Your task to perform on an android device: Search for seafood restaurants on Google Maps Image 0: 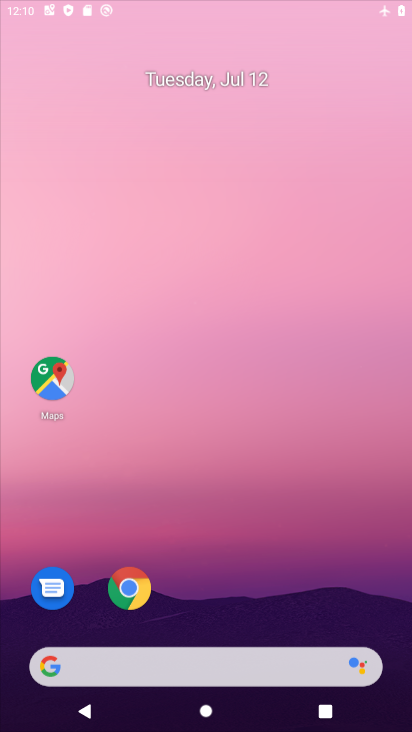
Step 0: click (228, 80)
Your task to perform on an android device: Search for seafood restaurants on Google Maps Image 1: 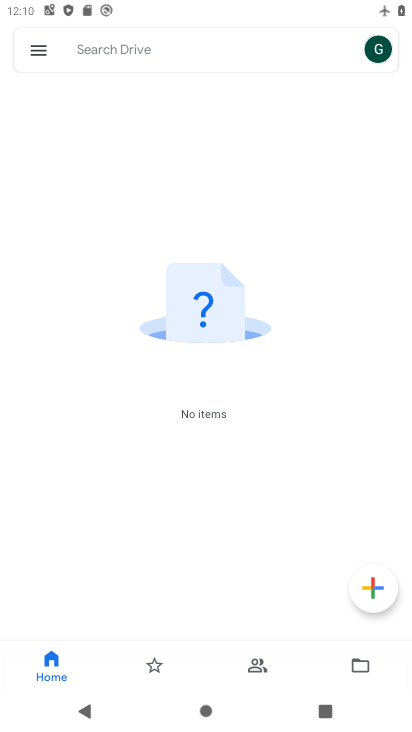
Step 1: press home button
Your task to perform on an android device: Search for seafood restaurants on Google Maps Image 2: 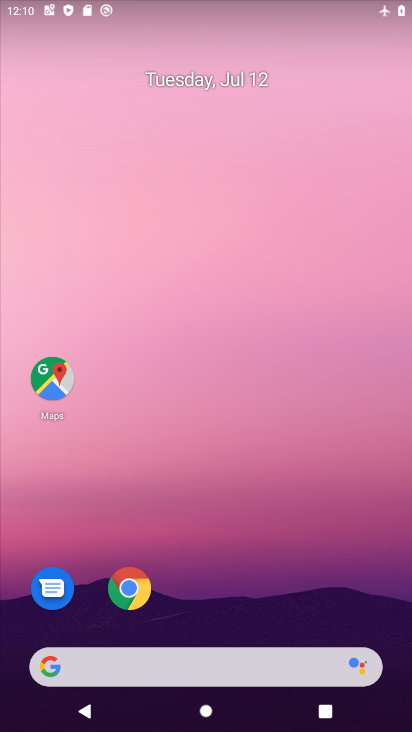
Step 2: drag from (333, 591) to (256, 150)
Your task to perform on an android device: Search for seafood restaurants on Google Maps Image 3: 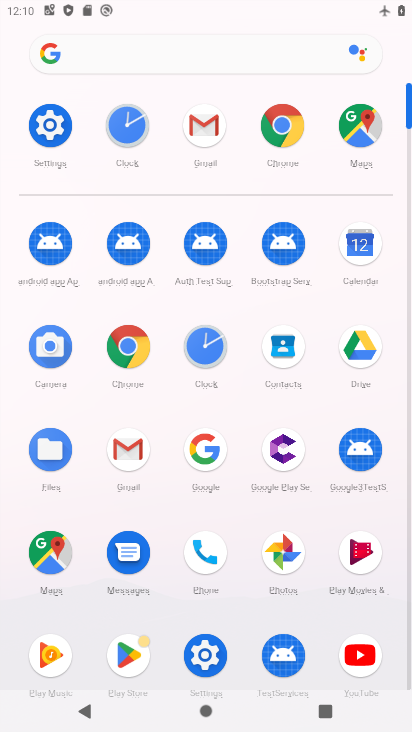
Step 3: click (356, 118)
Your task to perform on an android device: Search for seafood restaurants on Google Maps Image 4: 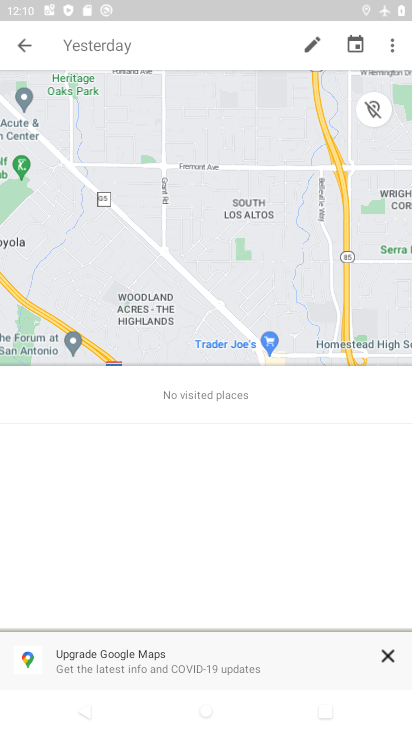
Step 4: click (29, 40)
Your task to perform on an android device: Search for seafood restaurants on Google Maps Image 5: 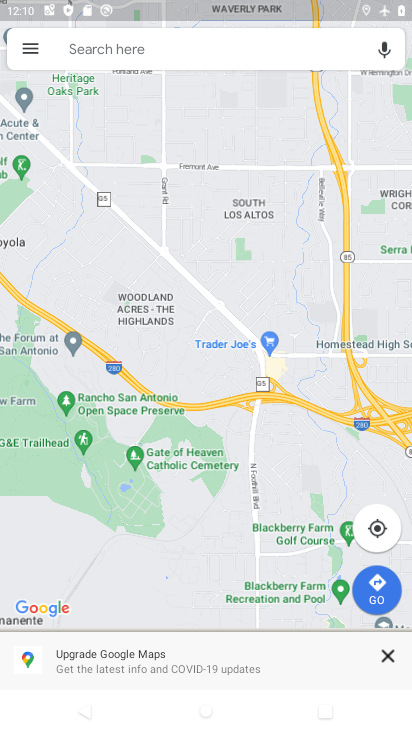
Step 5: click (118, 50)
Your task to perform on an android device: Search for seafood restaurants on Google Maps Image 6: 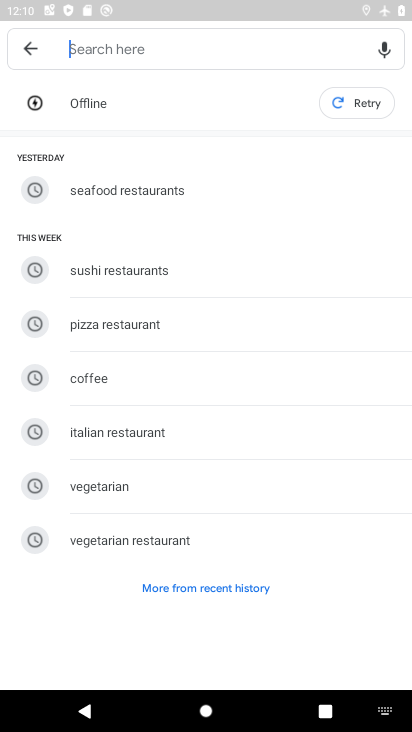
Step 6: click (113, 194)
Your task to perform on an android device: Search for seafood restaurants on Google Maps Image 7: 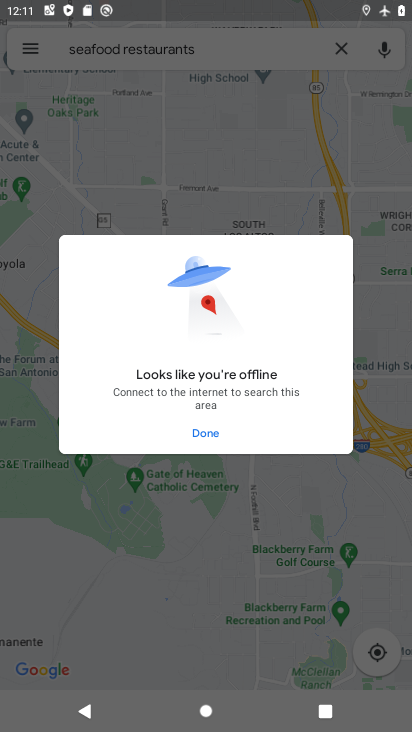
Step 7: task complete